Your task to perform on an android device: When is my next meeting? Image 0: 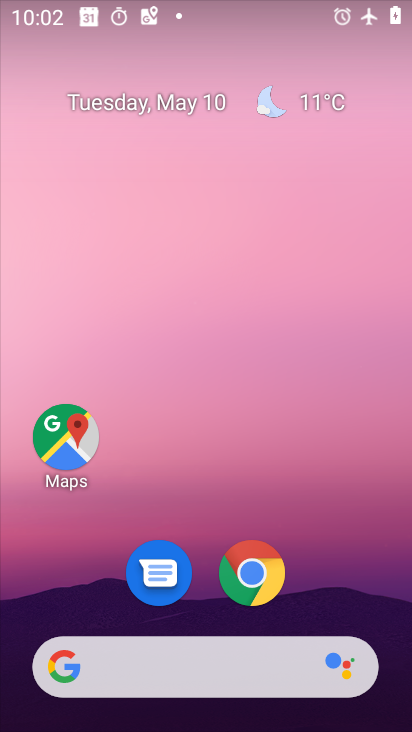
Step 0: drag from (355, 603) to (344, 15)
Your task to perform on an android device: When is my next meeting? Image 1: 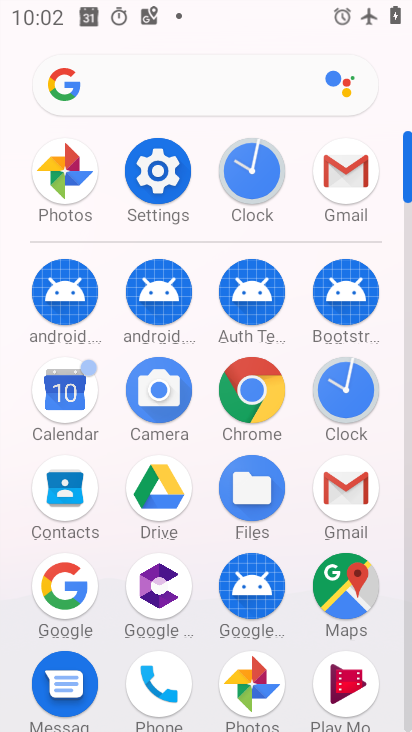
Step 1: click (57, 383)
Your task to perform on an android device: When is my next meeting? Image 2: 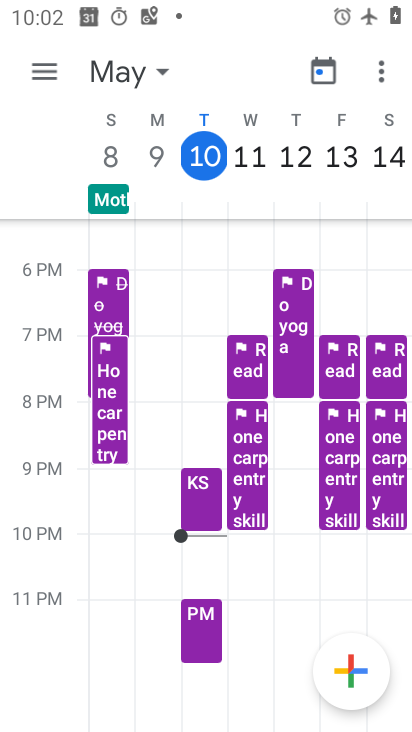
Step 2: click (55, 76)
Your task to perform on an android device: When is my next meeting? Image 3: 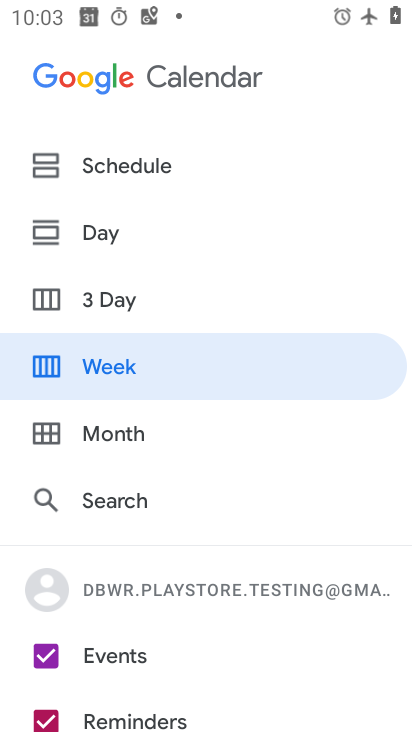
Step 3: click (76, 159)
Your task to perform on an android device: When is my next meeting? Image 4: 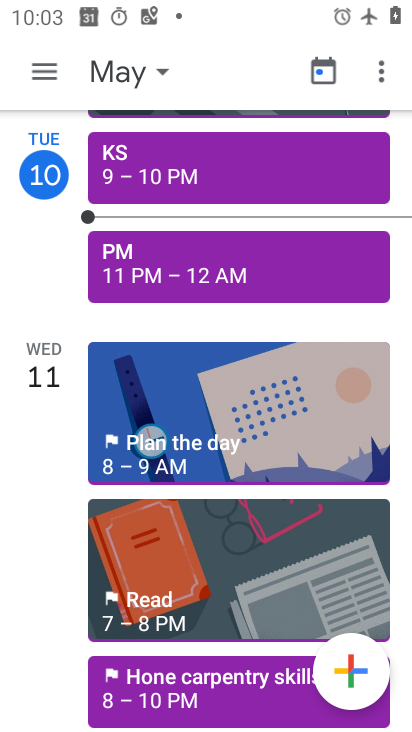
Step 4: click (155, 269)
Your task to perform on an android device: When is my next meeting? Image 5: 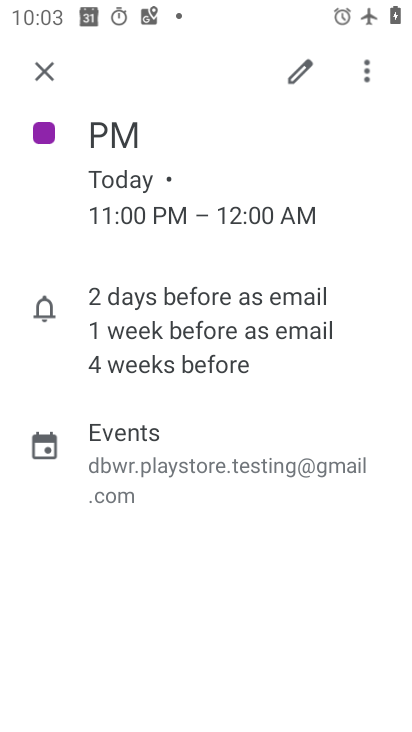
Step 5: task complete